Your task to perform on an android device: turn off smart reply in the gmail app Image 0: 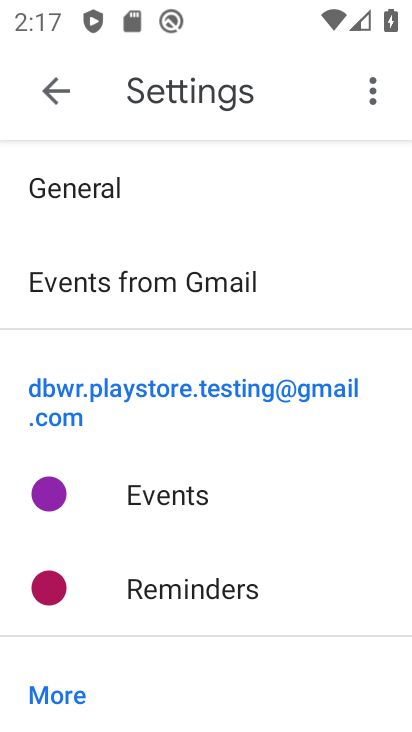
Step 0: press home button
Your task to perform on an android device: turn off smart reply in the gmail app Image 1: 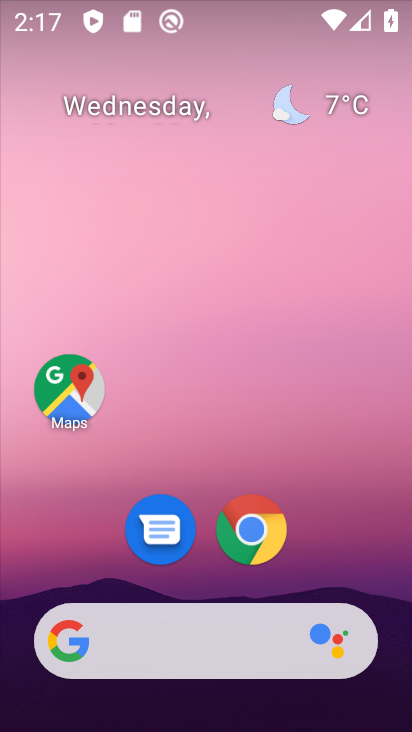
Step 1: drag from (371, 565) to (337, 218)
Your task to perform on an android device: turn off smart reply in the gmail app Image 2: 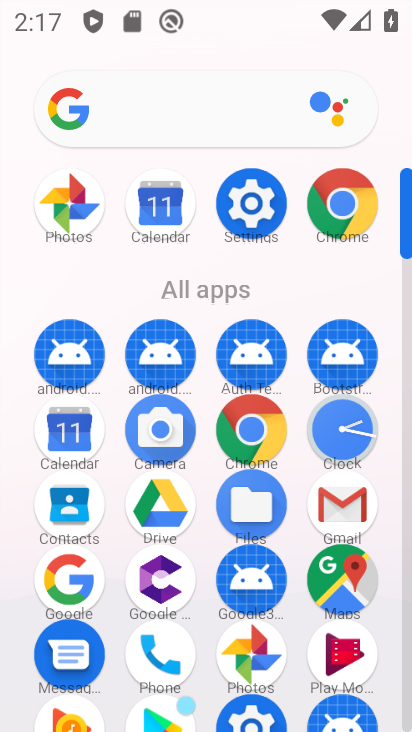
Step 2: click (359, 488)
Your task to perform on an android device: turn off smart reply in the gmail app Image 3: 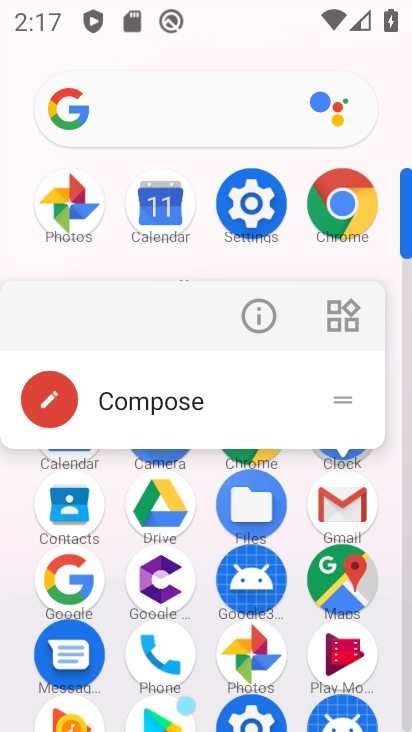
Step 3: click (359, 488)
Your task to perform on an android device: turn off smart reply in the gmail app Image 4: 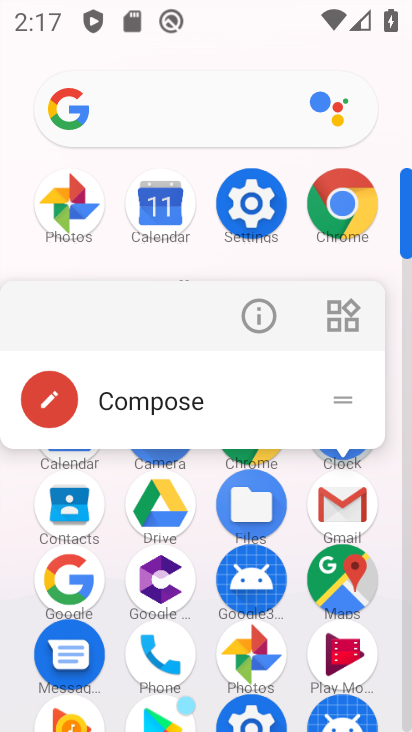
Step 4: click (353, 499)
Your task to perform on an android device: turn off smart reply in the gmail app Image 5: 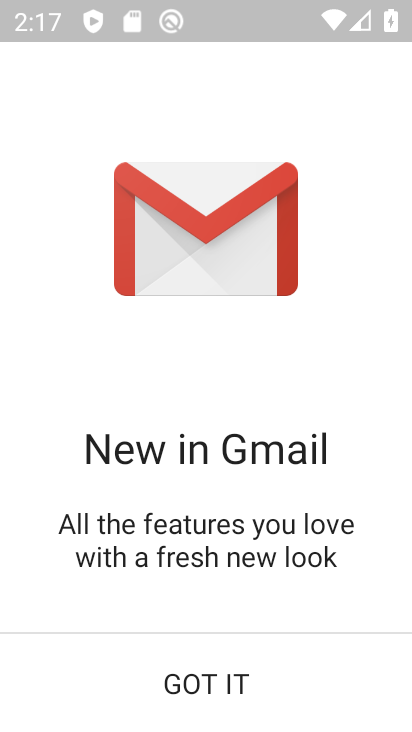
Step 5: click (206, 700)
Your task to perform on an android device: turn off smart reply in the gmail app Image 6: 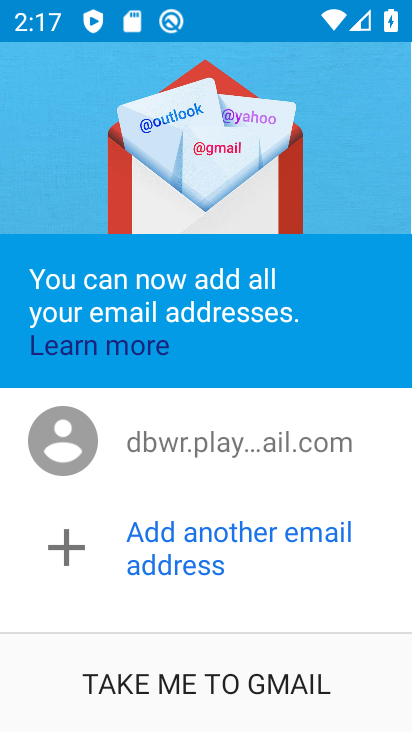
Step 6: click (208, 699)
Your task to perform on an android device: turn off smart reply in the gmail app Image 7: 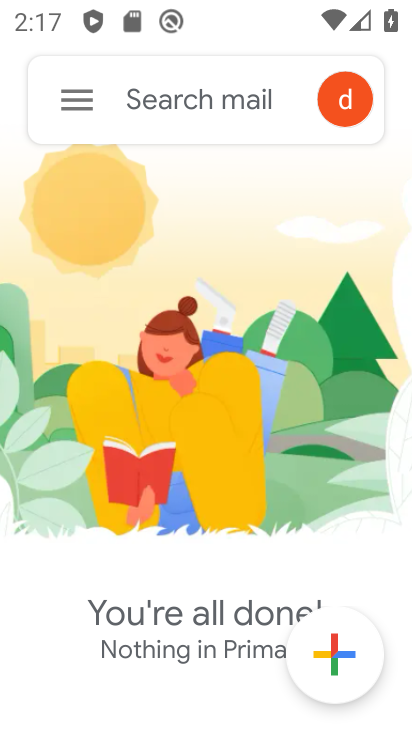
Step 7: click (88, 100)
Your task to perform on an android device: turn off smart reply in the gmail app Image 8: 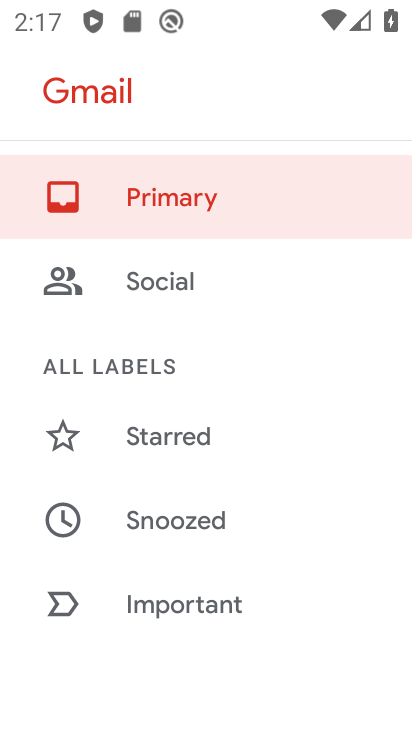
Step 8: drag from (196, 583) to (190, 213)
Your task to perform on an android device: turn off smart reply in the gmail app Image 9: 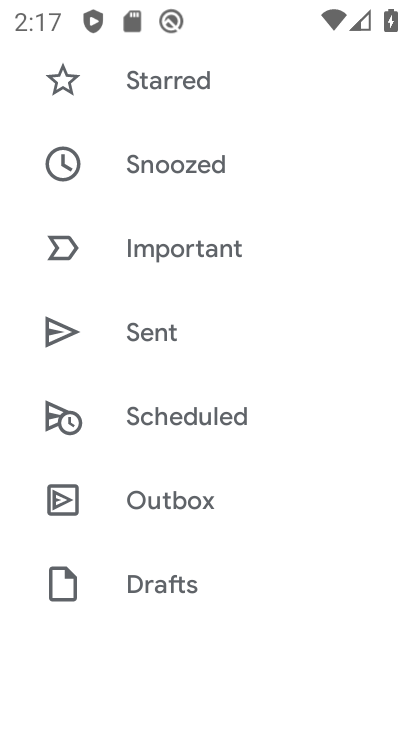
Step 9: drag from (232, 540) to (211, 211)
Your task to perform on an android device: turn off smart reply in the gmail app Image 10: 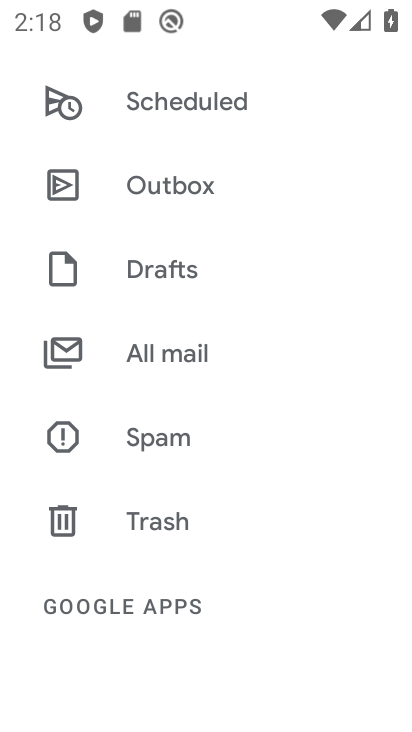
Step 10: drag from (199, 559) to (218, 249)
Your task to perform on an android device: turn off smart reply in the gmail app Image 11: 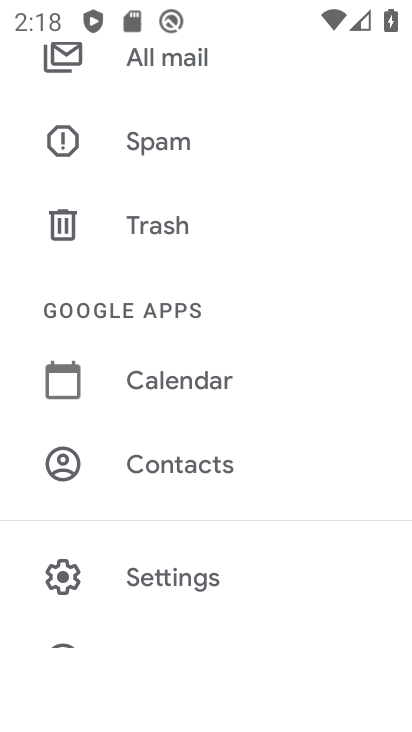
Step 11: click (189, 559)
Your task to perform on an android device: turn off smart reply in the gmail app Image 12: 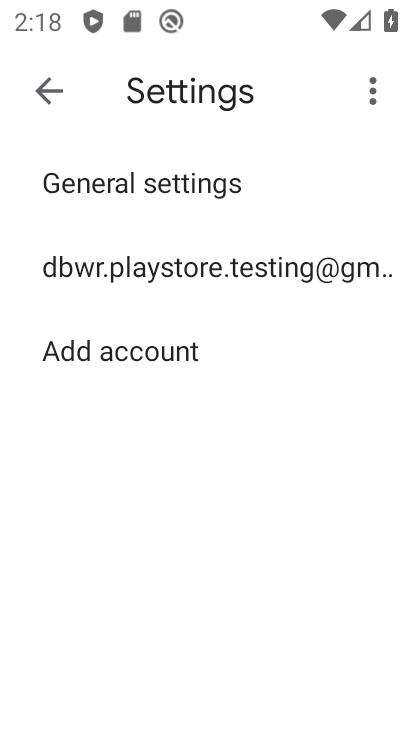
Step 12: click (140, 274)
Your task to perform on an android device: turn off smart reply in the gmail app Image 13: 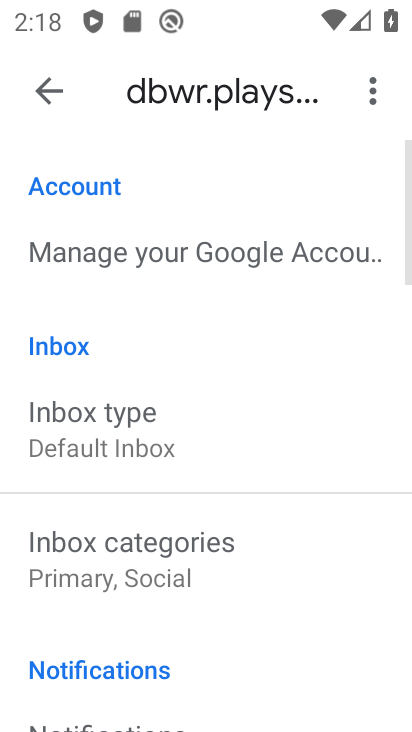
Step 13: drag from (244, 609) to (236, 216)
Your task to perform on an android device: turn off smart reply in the gmail app Image 14: 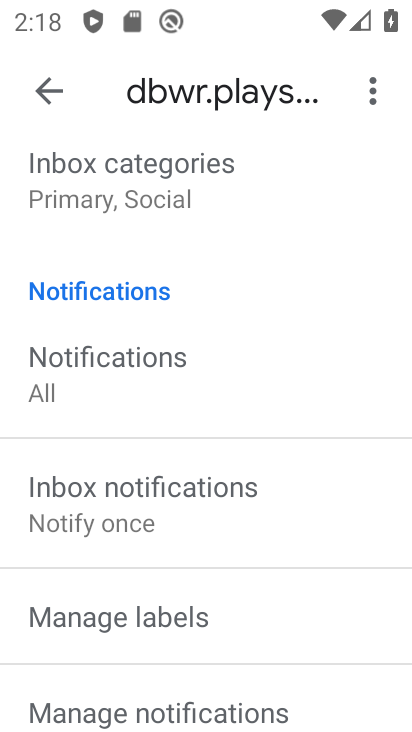
Step 14: drag from (235, 562) to (235, 153)
Your task to perform on an android device: turn off smart reply in the gmail app Image 15: 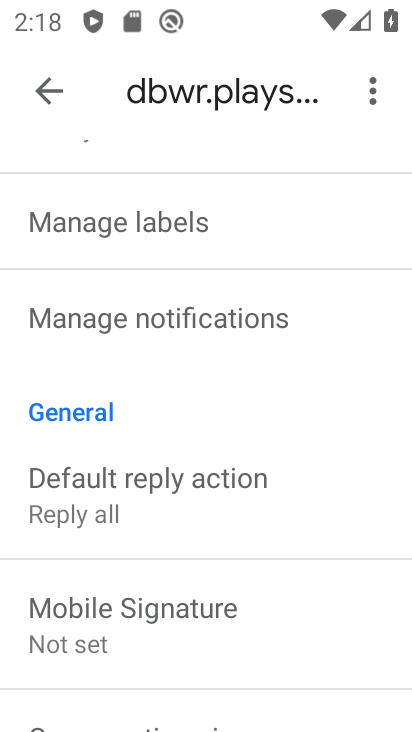
Step 15: drag from (252, 578) to (201, 160)
Your task to perform on an android device: turn off smart reply in the gmail app Image 16: 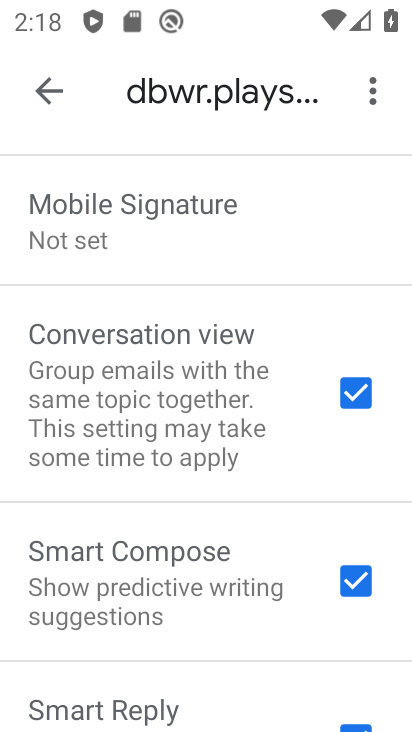
Step 16: drag from (228, 609) to (187, 284)
Your task to perform on an android device: turn off smart reply in the gmail app Image 17: 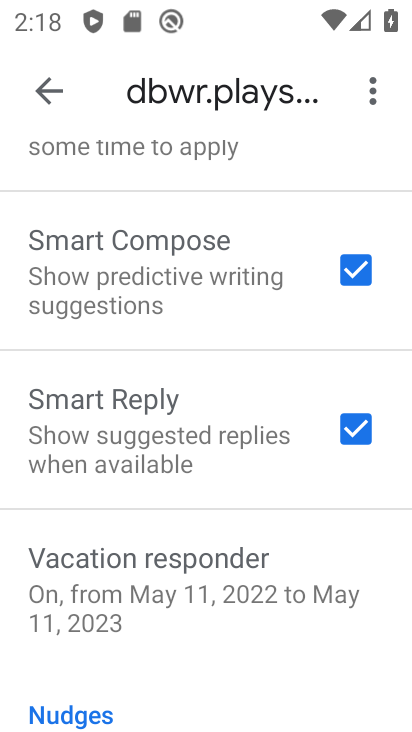
Step 17: click (360, 425)
Your task to perform on an android device: turn off smart reply in the gmail app Image 18: 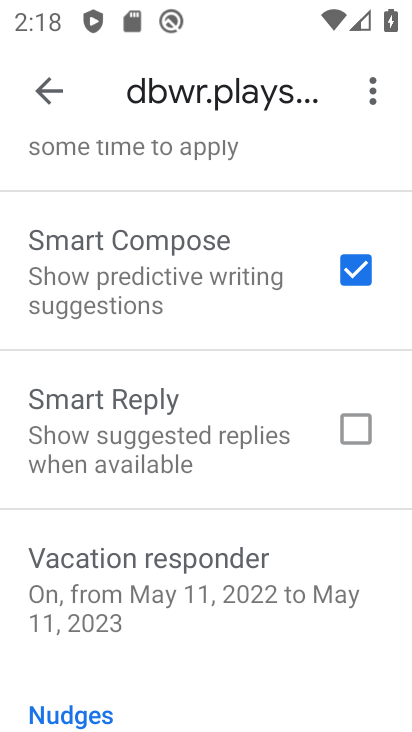
Step 18: task complete